Your task to perform on an android device: toggle improve location accuracy Image 0: 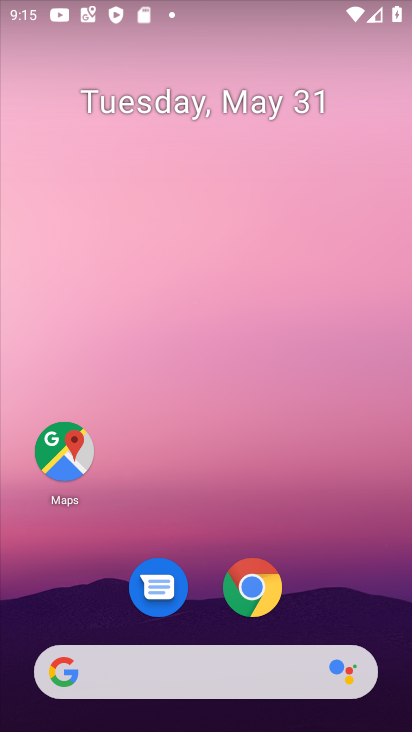
Step 0: drag from (292, 570) to (258, 86)
Your task to perform on an android device: toggle improve location accuracy Image 1: 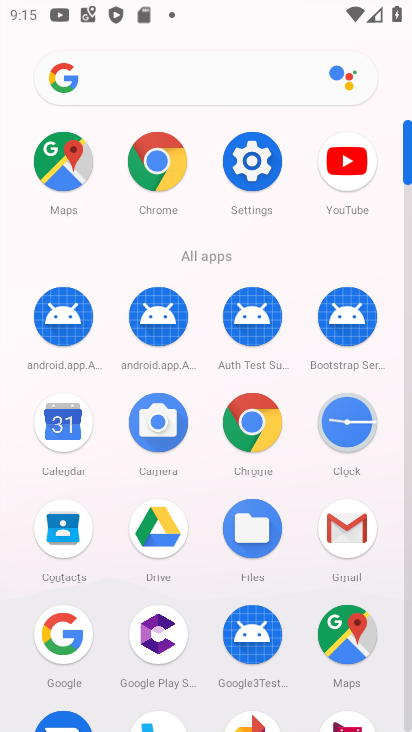
Step 1: click (251, 157)
Your task to perform on an android device: toggle improve location accuracy Image 2: 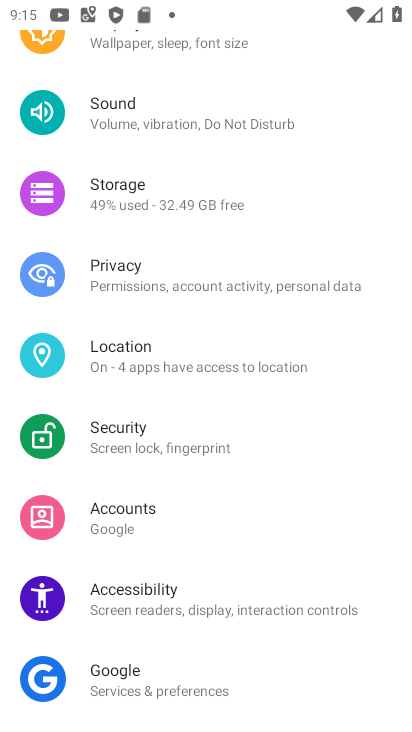
Step 2: click (149, 360)
Your task to perform on an android device: toggle improve location accuracy Image 3: 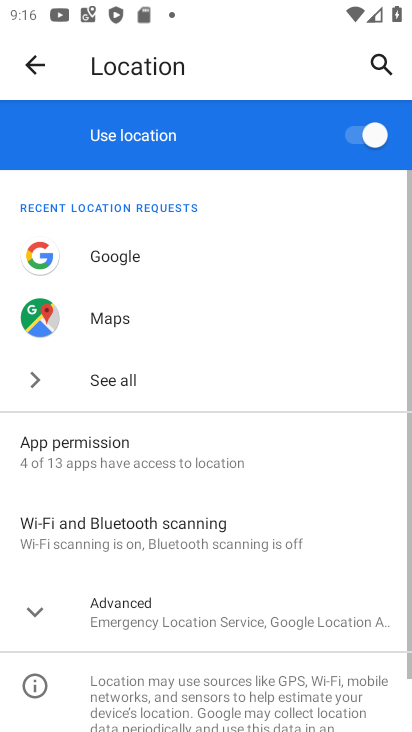
Step 3: click (131, 607)
Your task to perform on an android device: toggle improve location accuracy Image 4: 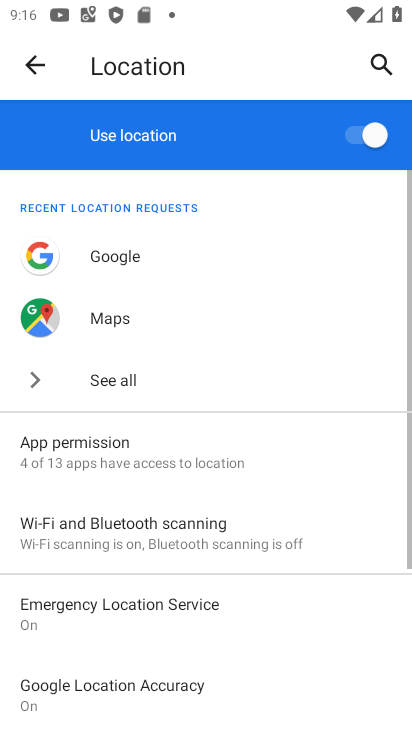
Step 4: drag from (151, 638) to (174, 366)
Your task to perform on an android device: toggle improve location accuracy Image 5: 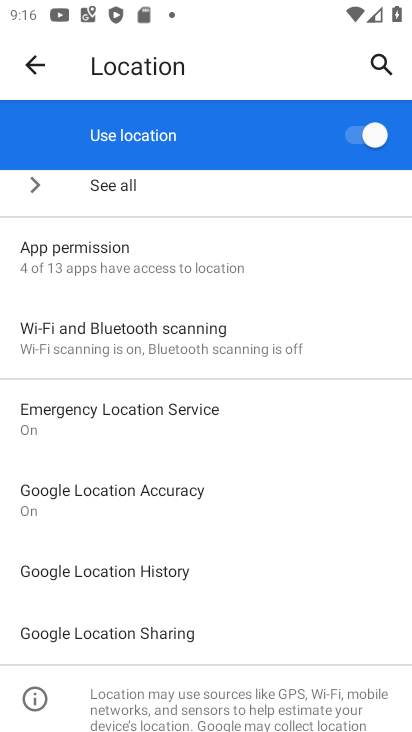
Step 5: click (171, 485)
Your task to perform on an android device: toggle improve location accuracy Image 6: 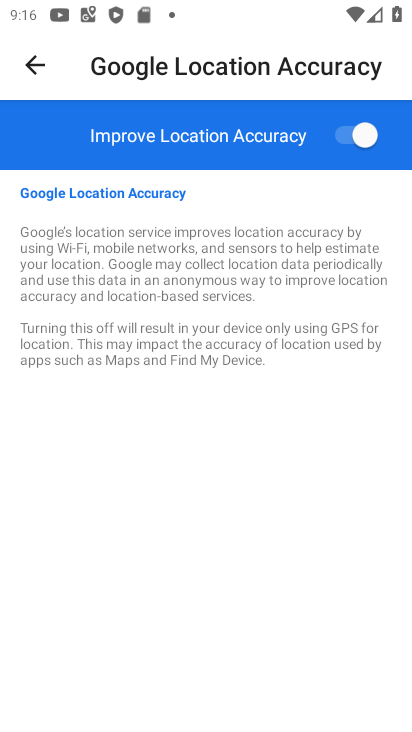
Step 6: click (342, 135)
Your task to perform on an android device: toggle improve location accuracy Image 7: 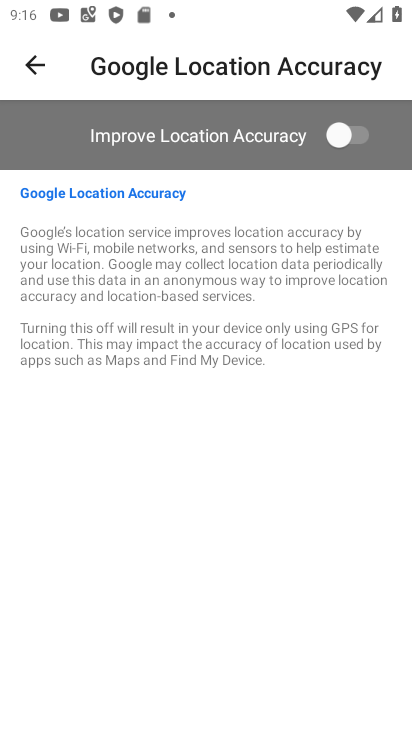
Step 7: task complete